Your task to perform on an android device: Open the stopwatch Image 0: 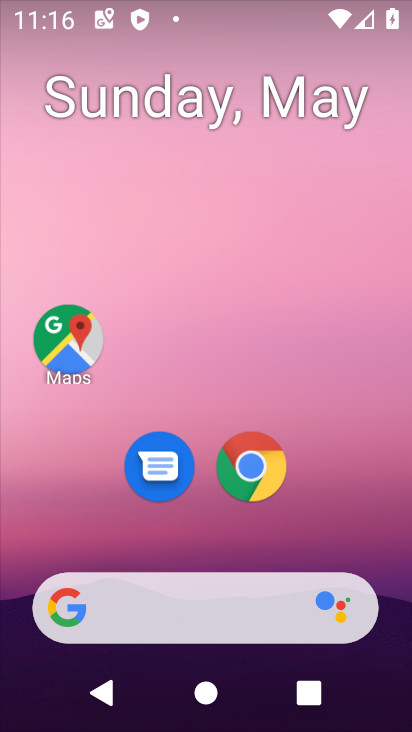
Step 0: drag from (395, 608) to (312, 127)
Your task to perform on an android device: Open the stopwatch Image 1: 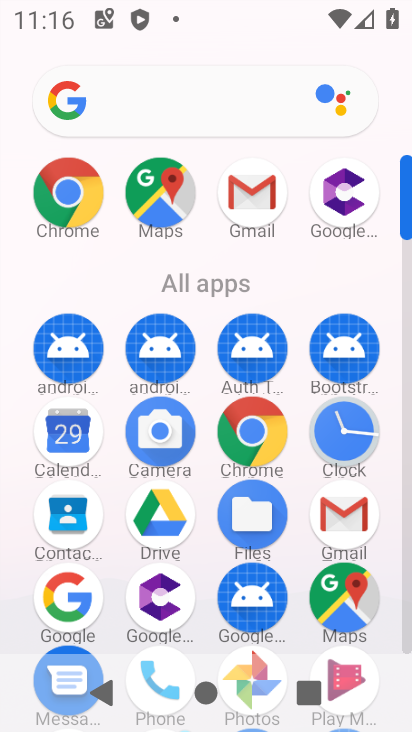
Step 1: click (355, 442)
Your task to perform on an android device: Open the stopwatch Image 2: 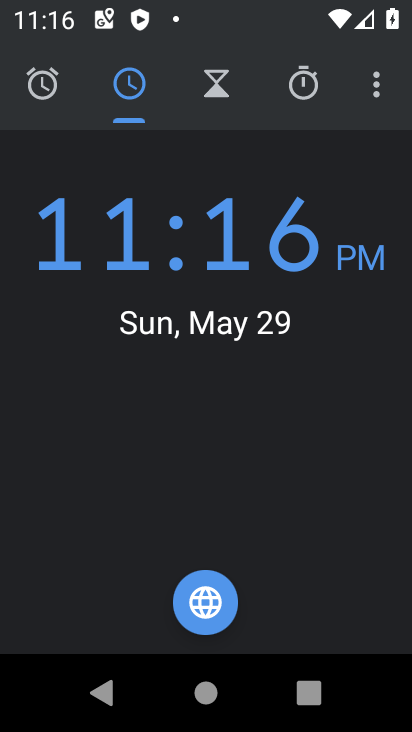
Step 2: click (310, 97)
Your task to perform on an android device: Open the stopwatch Image 3: 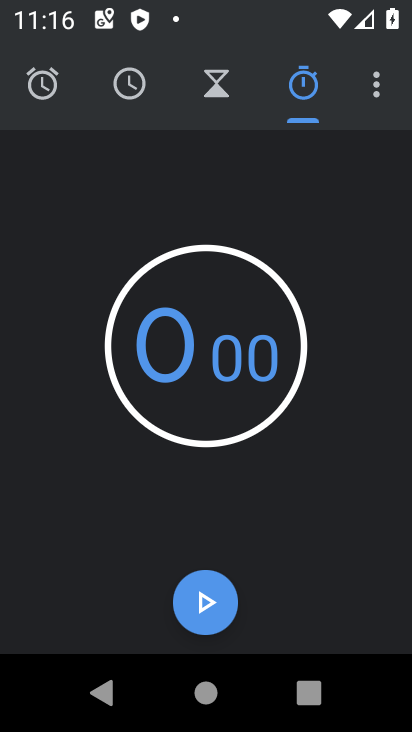
Step 3: task complete